Your task to perform on an android device: change the clock style Image 0: 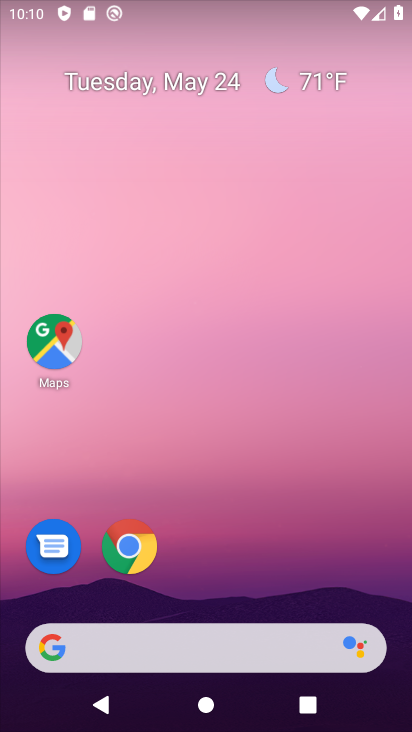
Step 0: drag from (218, 593) to (236, 104)
Your task to perform on an android device: change the clock style Image 1: 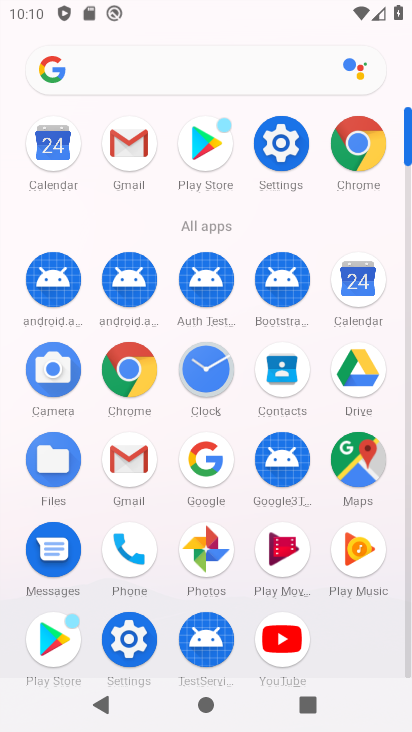
Step 1: click (212, 360)
Your task to perform on an android device: change the clock style Image 2: 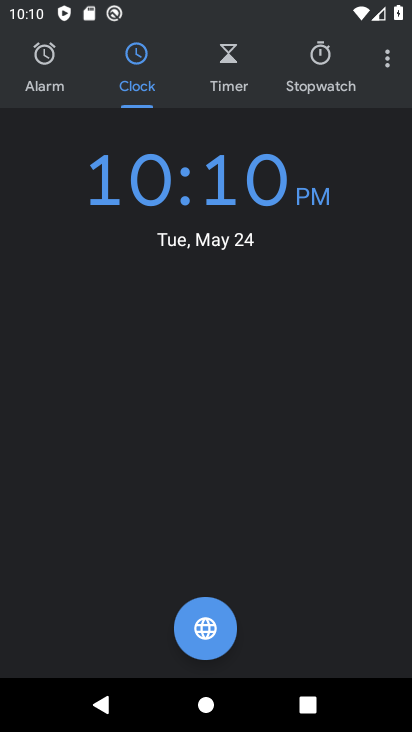
Step 2: click (388, 61)
Your task to perform on an android device: change the clock style Image 3: 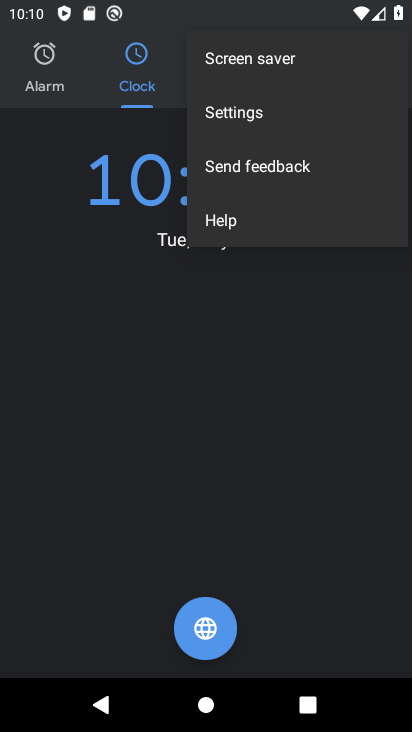
Step 3: click (246, 106)
Your task to perform on an android device: change the clock style Image 4: 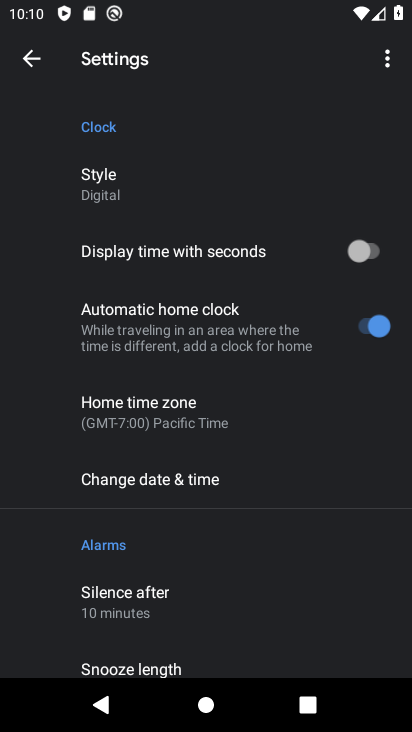
Step 4: click (117, 192)
Your task to perform on an android device: change the clock style Image 5: 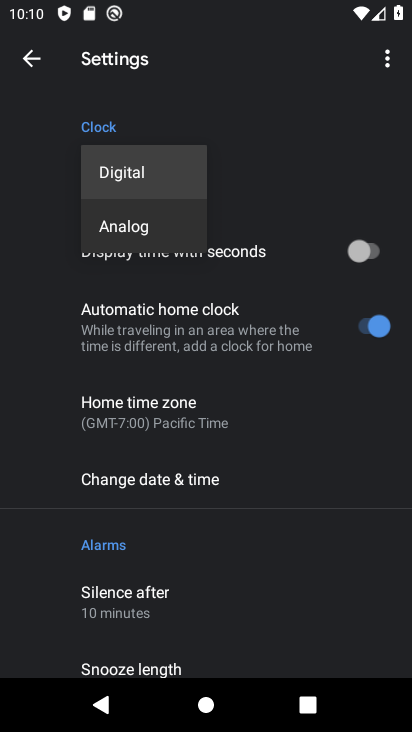
Step 5: click (131, 237)
Your task to perform on an android device: change the clock style Image 6: 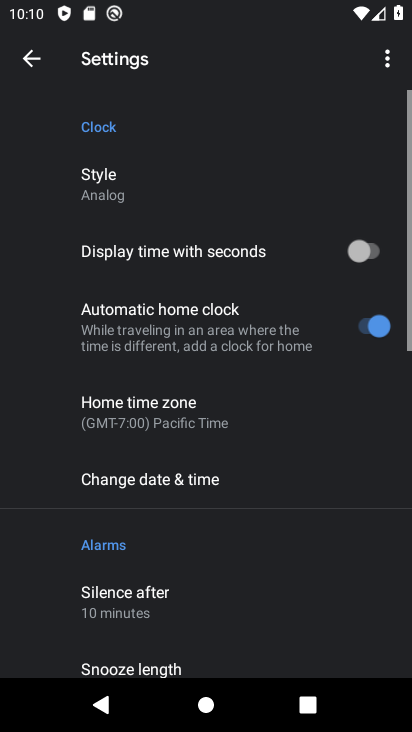
Step 6: task complete